Your task to perform on an android device: create a new album in the google photos Image 0: 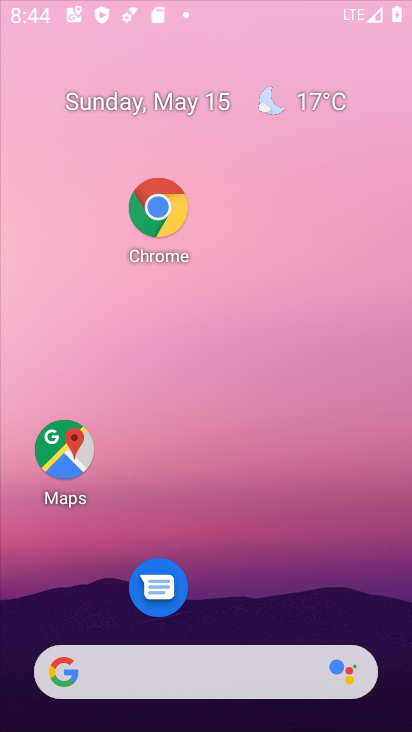
Step 0: drag from (332, 640) to (155, 80)
Your task to perform on an android device: create a new album in the google photos Image 1: 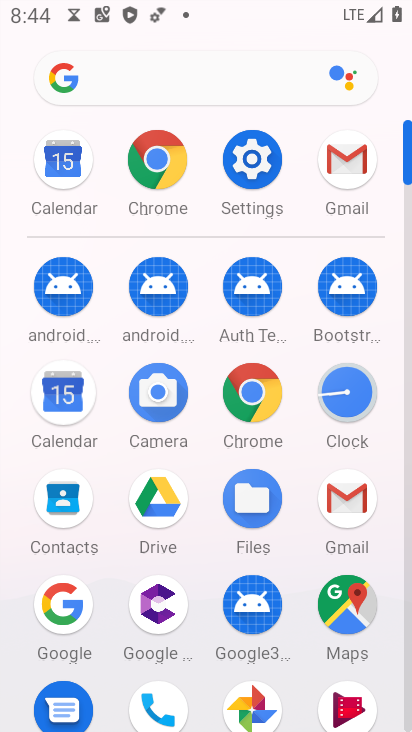
Step 1: click (260, 695)
Your task to perform on an android device: create a new album in the google photos Image 2: 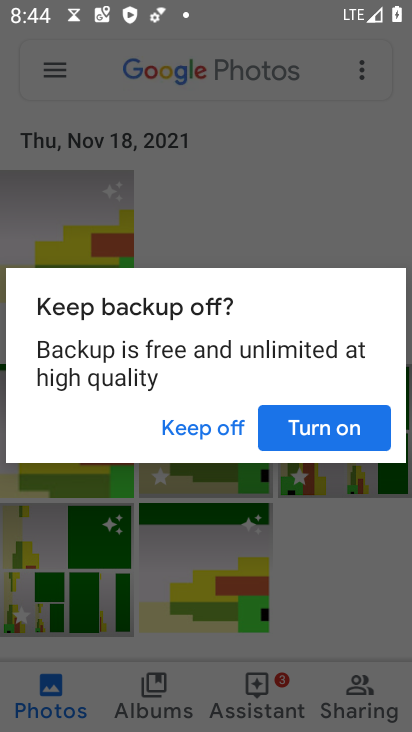
Step 2: click (322, 421)
Your task to perform on an android device: create a new album in the google photos Image 3: 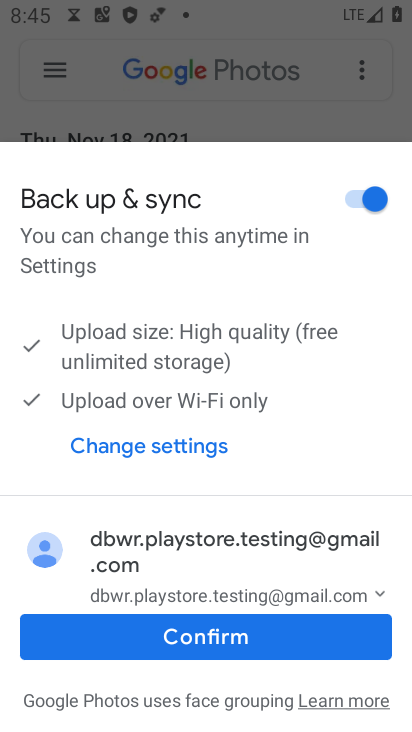
Step 3: click (200, 633)
Your task to perform on an android device: create a new album in the google photos Image 4: 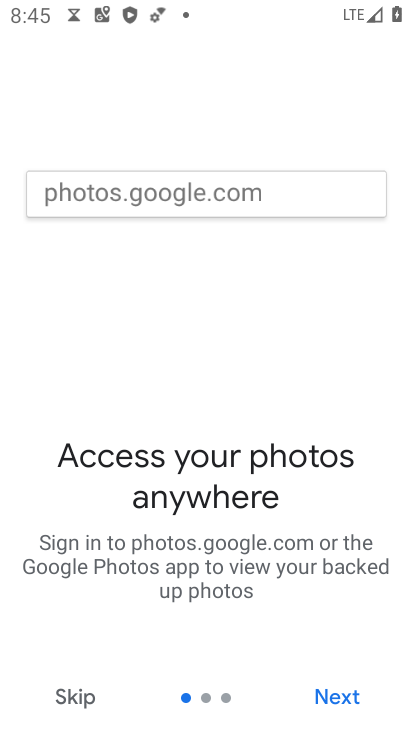
Step 4: click (344, 704)
Your task to perform on an android device: create a new album in the google photos Image 5: 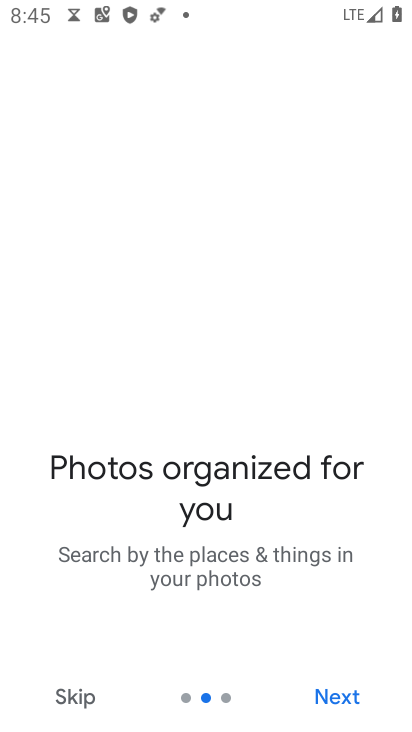
Step 5: click (339, 701)
Your task to perform on an android device: create a new album in the google photos Image 6: 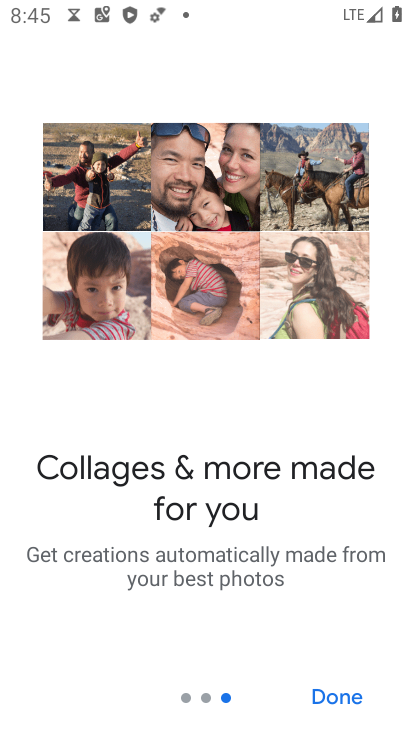
Step 6: click (326, 691)
Your task to perform on an android device: create a new album in the google photos Image 7: 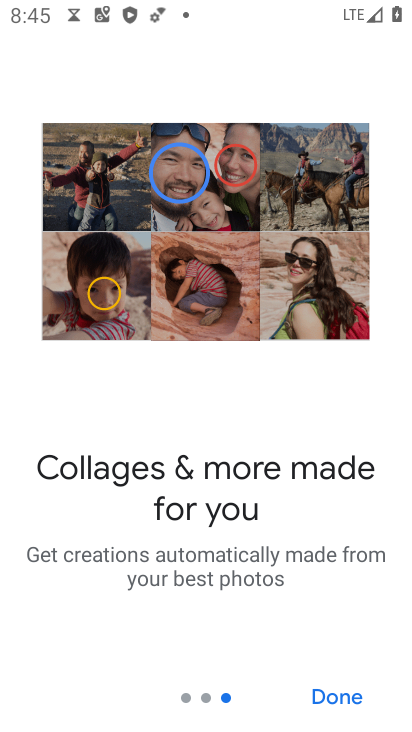
Step 7: click (330, 687)
Your task to perform on an android device: create a new album in the google photos Image 8: 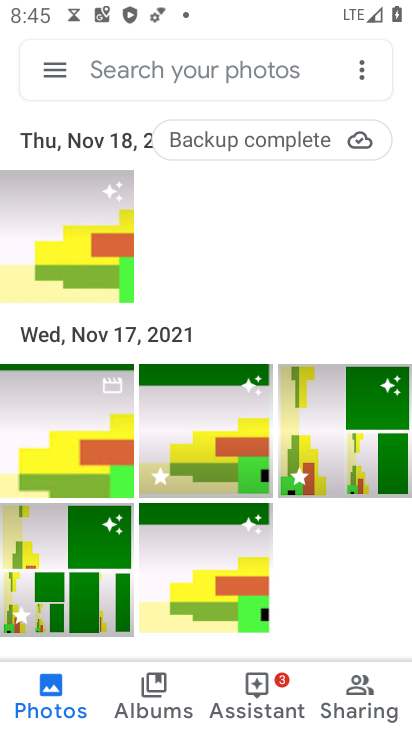
Step 8: click (165, 675)
Your task to perform on an android device: create a new album in the google photos Image 9: 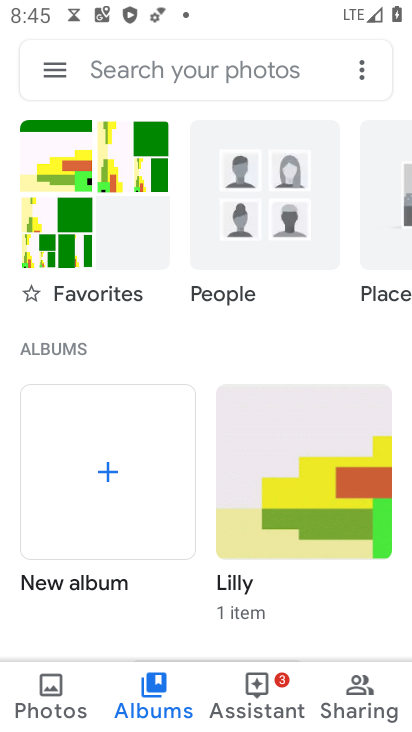
Step 9: click (359, 60)
Your task to perform on an android device: create a new album in the google photos Image 10: 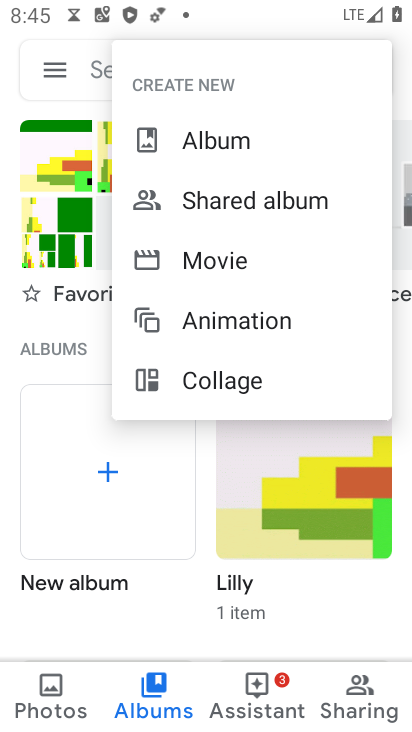
Step 10: click (227, 142)
Your task to perform on an android device: create a new album in the google photos Image 11: 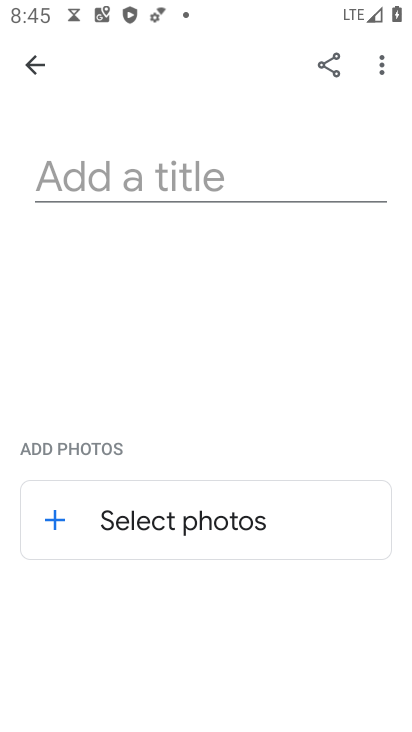
Step 11: click (90, 186)
Your task to perform on an android device: create a new album in the google photos Image 12: 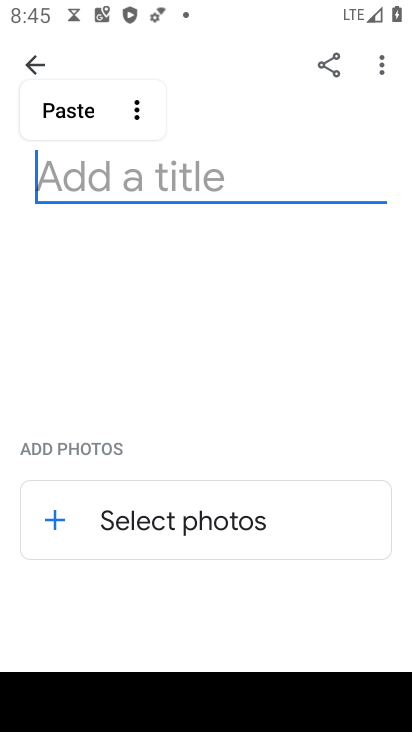
Step 12: type "ayodhya"
Your task to perform on an android device: create a new album in the google photos Image 13: 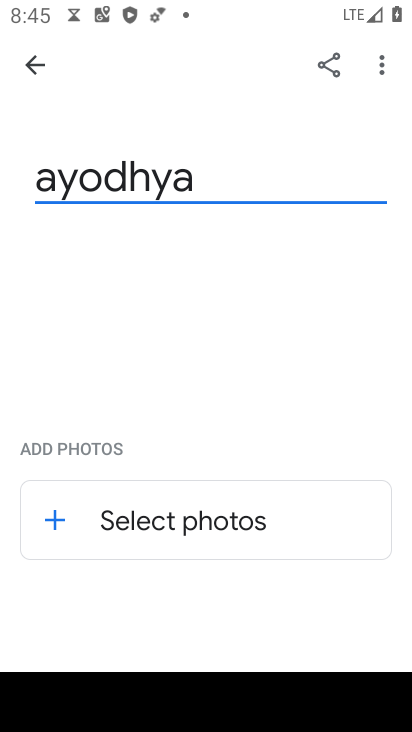
Step 13: click (133, 521)
Your task to perform on an android device: create a new album in the google photos Image 14: 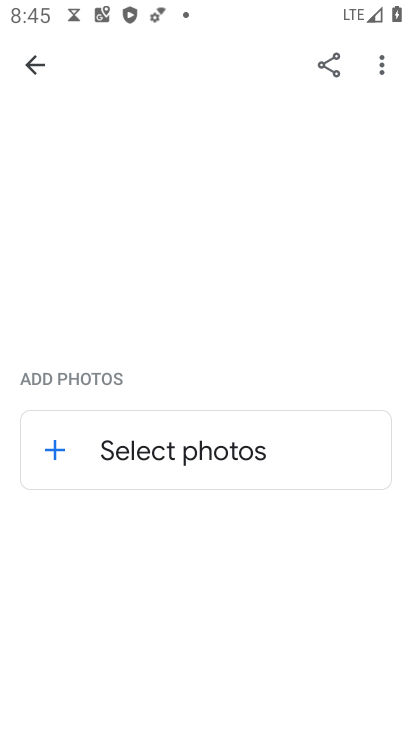
Step 14: click (117, 447)
Your task to perform on an android device: create a new album in the google photos Image 15: 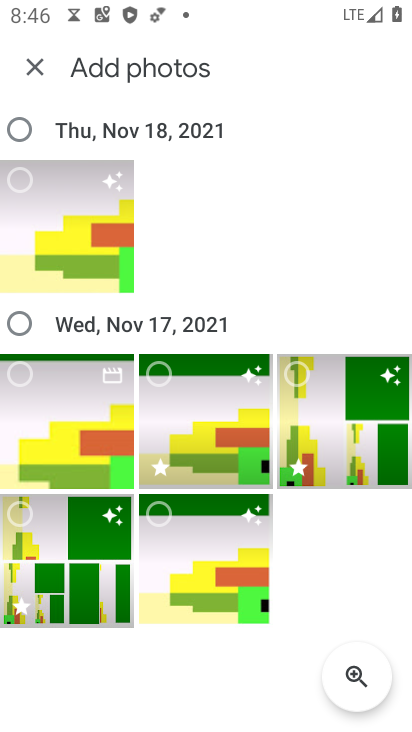
Step 15: click (14, 130)
Your task to perform on an android device: create a new album in the google photos Image 16: 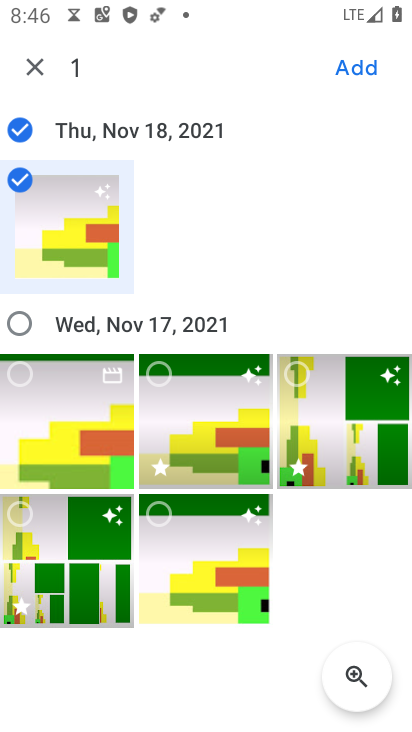
Step 16: click (358, 65)
Your task to perform on an android device: create a new album in the google photos Image 17: 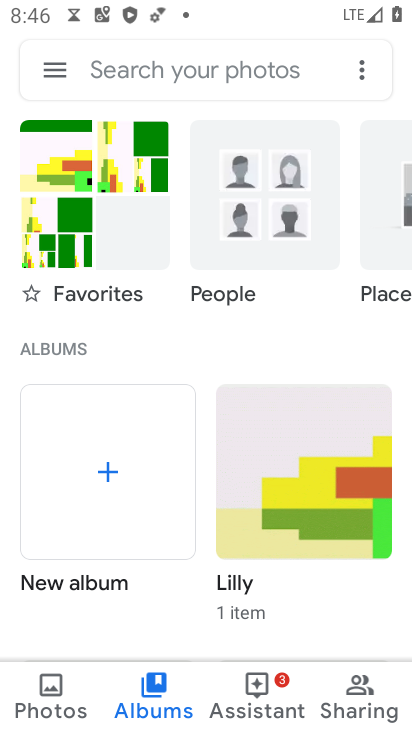
Step 17: task complete